Your task to perform on an android device: Open internet settings Image 0: 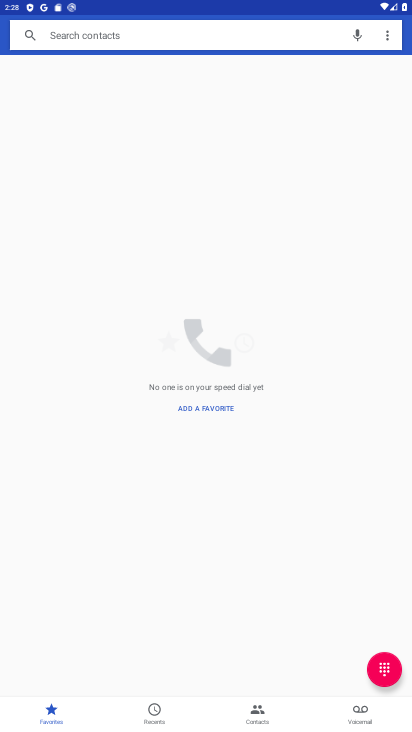
Step 0: press home button
Your task to perform on an android device: Open internet settings Image 1: 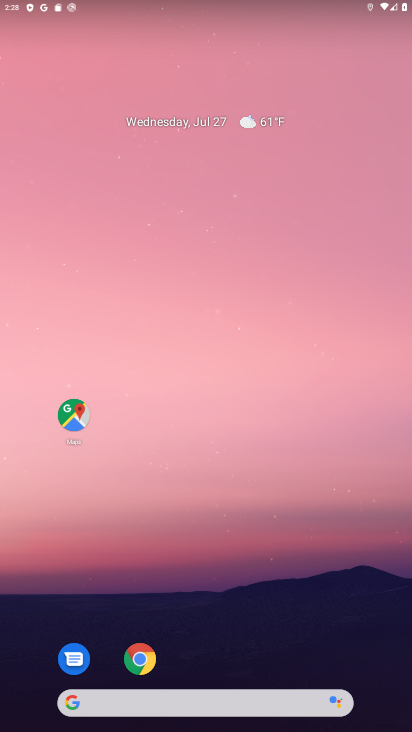
Step 1: drag from (190, 697) to (213, 57)
Your task to perform on an android device: Open internet settings Image 2: 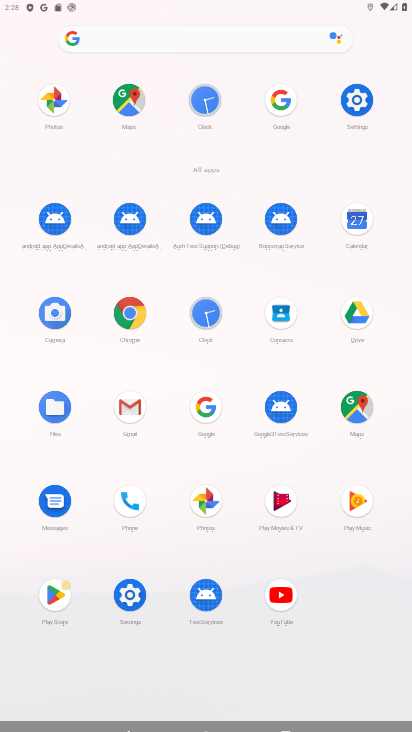
Step 2: click (358, 97)
Your task to perform on an android device: Open internet settings Image 3: 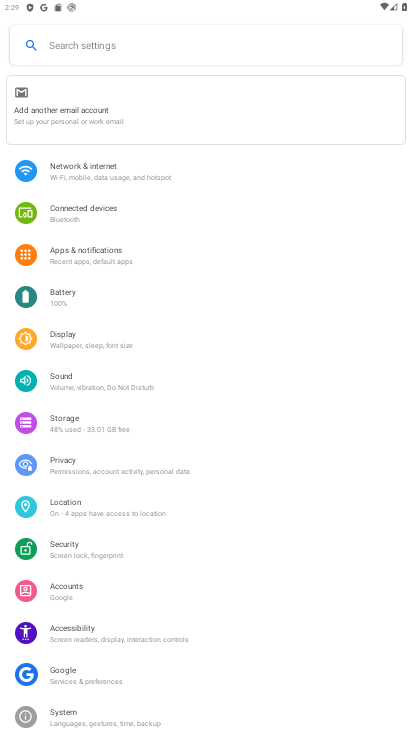
Step 3: click (100, 169)
Your task to perform on an android device: Open internet settings Image 4: 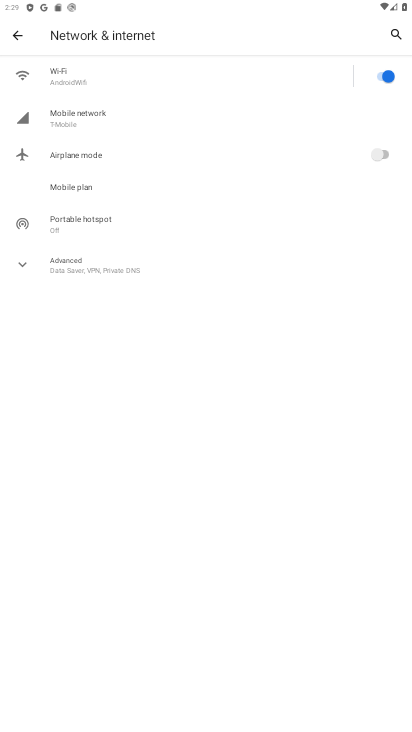
Step 4: click (70, 260)
Your task to perform on an android device: Open internet settings Image 5: 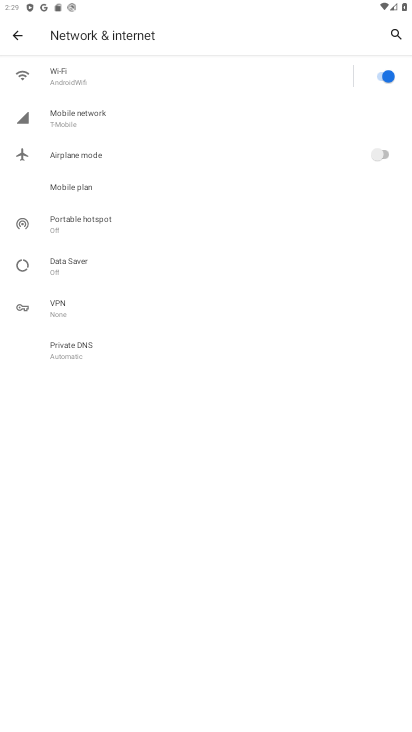
Step 5: task complete